Your task to perform on an android device: Set the phone to "Do not disturb". Image 0: 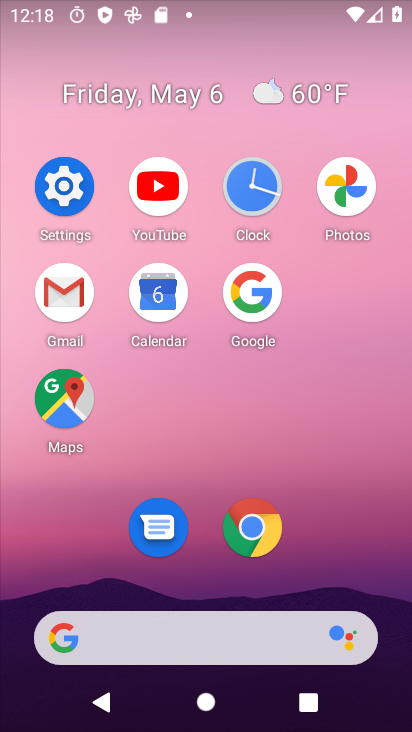
Step 0: click (76, 192)
Your task to perform on an android device: Set the phone to "Do not disturb". Image 1: 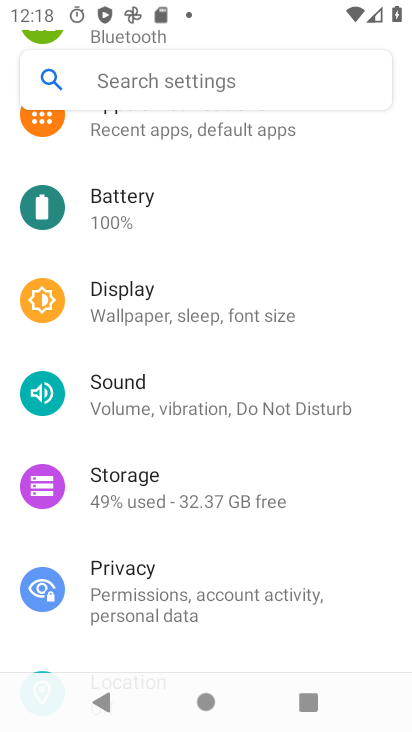
Step 1: click (245, 404)
Your task to perform on an android device: Set the phone to "Do not disturb". Image 2: 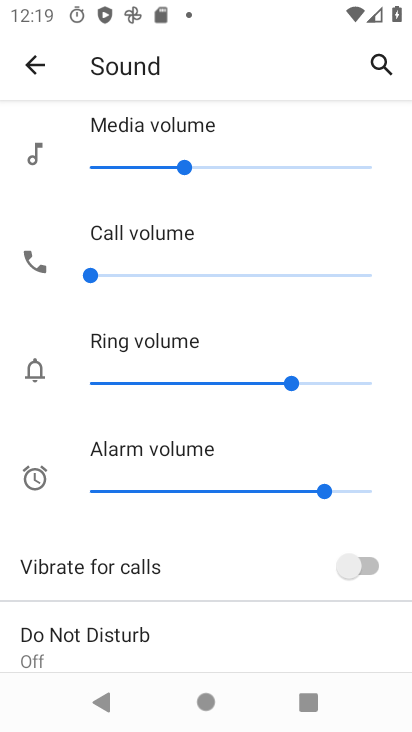
Step 2: drag from (197, 603) to (172, 237)
Your task to perform on an android device: Set the phone to "Do not disturb". Image 3: 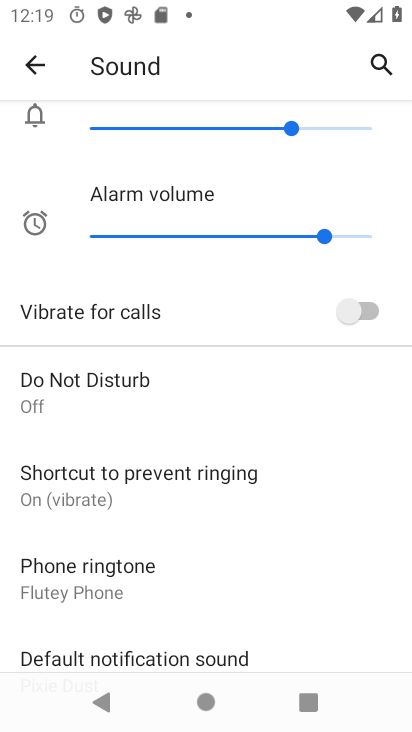
Step 3: click (153, 396)
Your task to perform on an android device: Set the phone to "Do not disturb". Image 4: 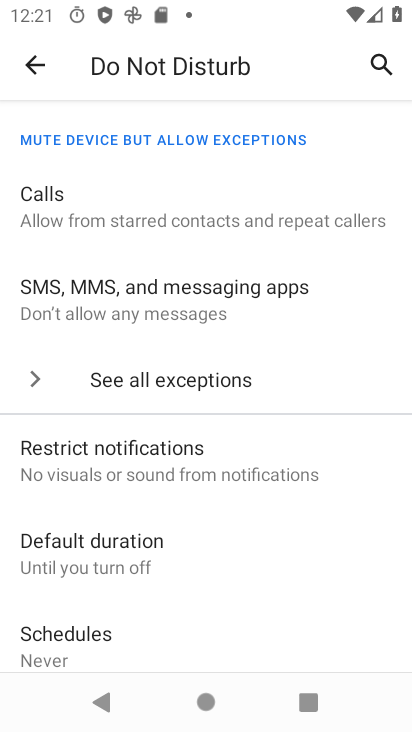
Step 4: drag from (237, 563) to (279, 192)
Your task to perform on an android device: Set the phone to "Do not disturb". Image 5: 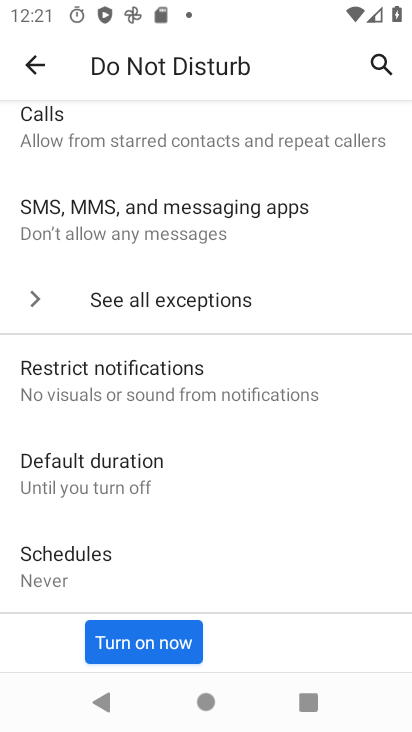
Step 5: click (174, 640)
Your task to perform on an android device: Set the phone to "Do not disturb". Image 6: 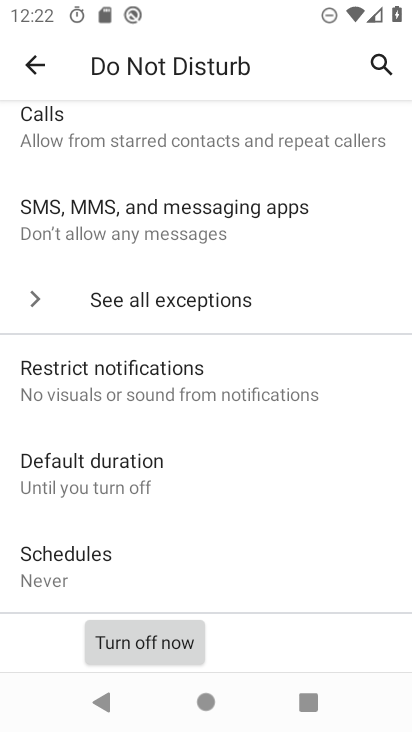
Step 6: task complete